Your task to perform on an android device: change the clock display to show seconds Image 0: 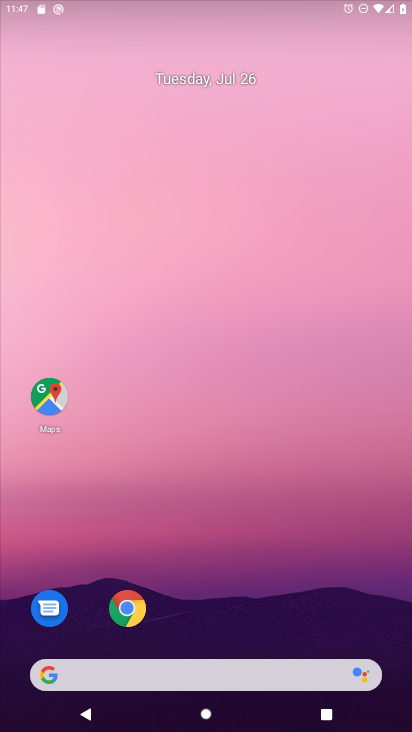
Step 0: drag from (333, 621) to (280, 77)
Your task to perform on an android device: change the clock display to show seconds Image 1: 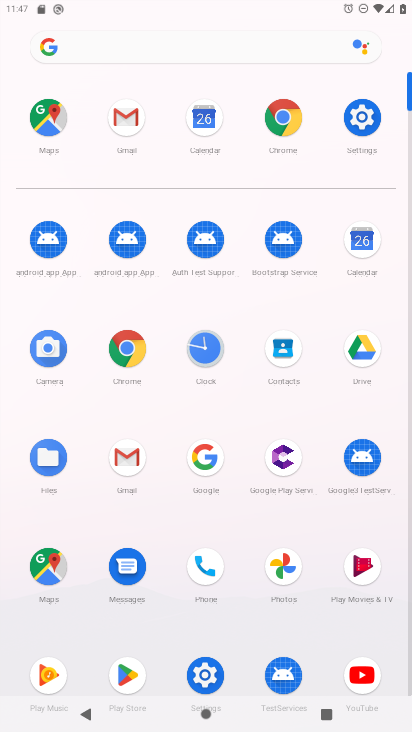
Step 1: click (194, 351)
Your task to perform on an android device: change the clock display to show seconds Image 2: 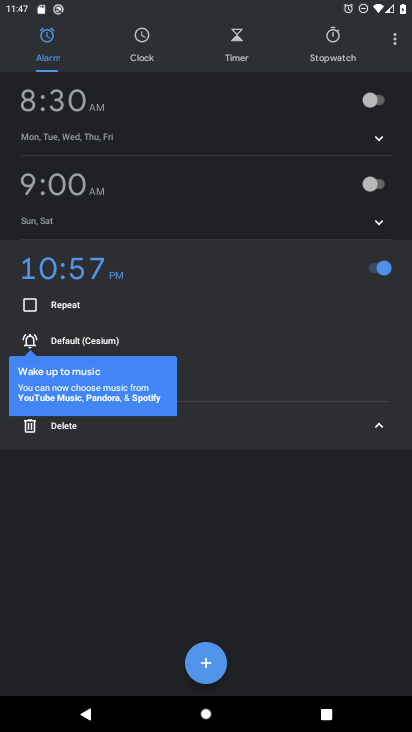
Step 2: click (400, 42)
Your task to perform on an android device: change the clock display to show seconds Image 3: 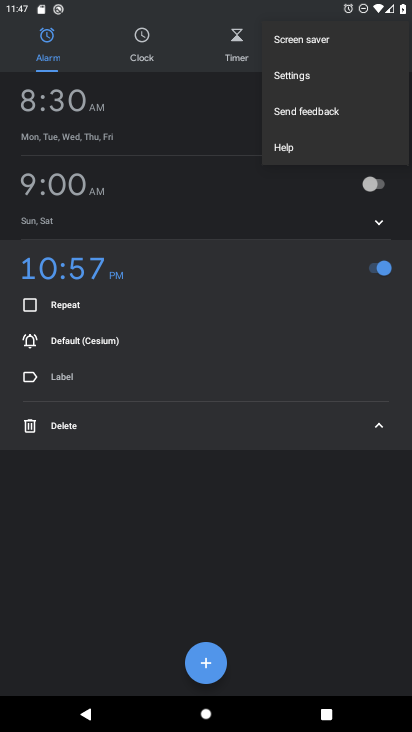
Step 3: click (318, 85)
Your task to perform on an android device: change the clock display to show seconds Image 4: 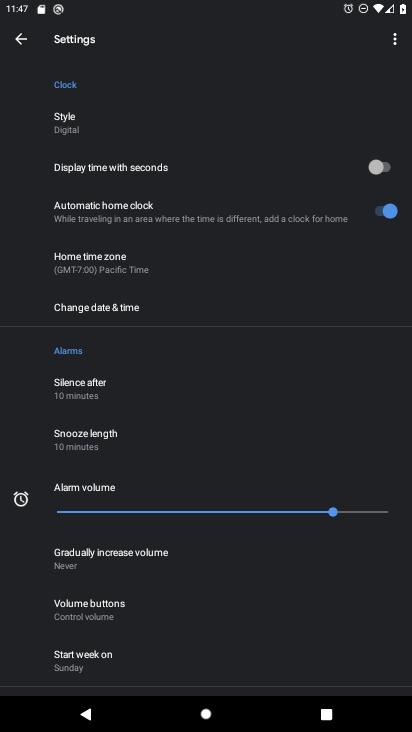
Step 4: click (389, 166)
Your task to perform on an android device: change the clock display to show seconds Image 5: 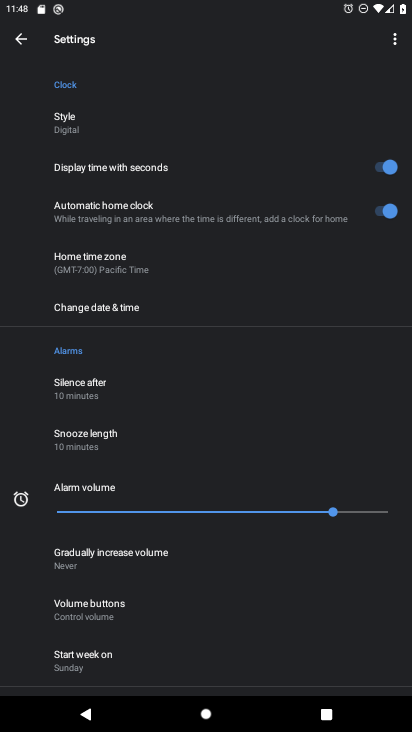
Step 5: task complete